Your task to perform on an android device: Go to battery settings Image 0: 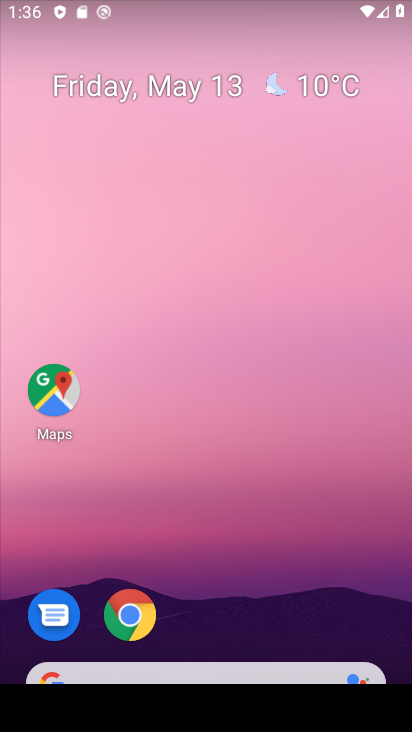
Step 0: drag from (246, 529) to (204, 179)
Your task to perform on an android device: Go to battery settings Image 1: 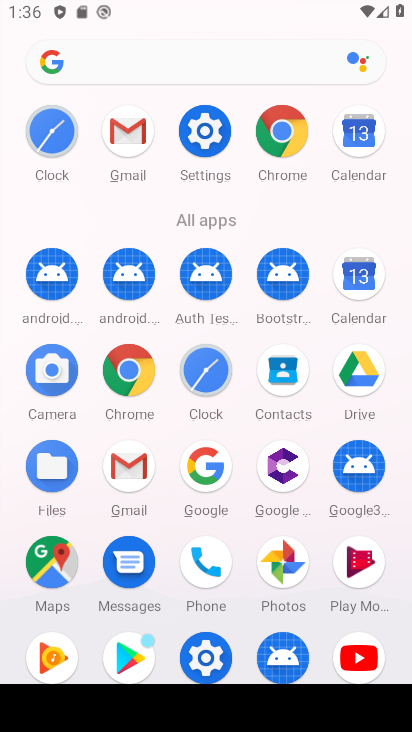
Step 1: click (205, 155)
Your task to perform on an android device: Go to battery settings Image 2: 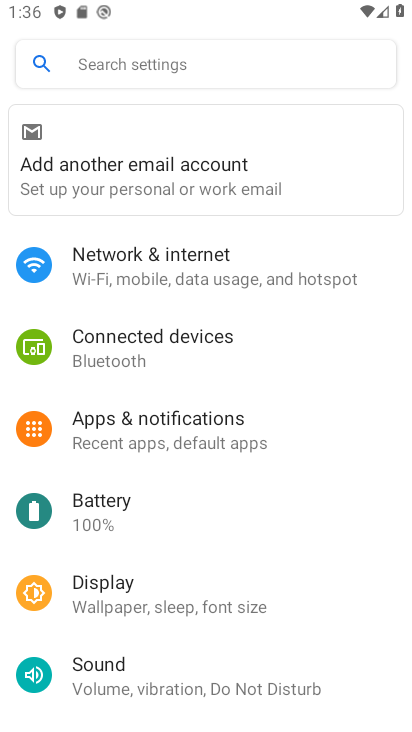
Step 2: click (83, 503)
Your task to perform on an android device: Go to battery settings Image 3: 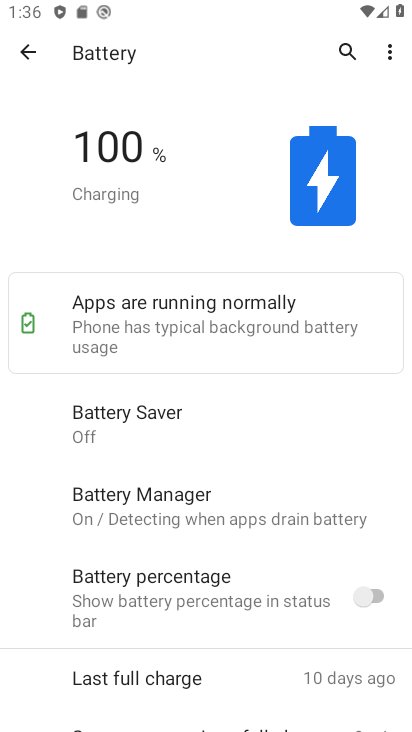
Step 3: task complete